Your task to perform on an android device: add a contact in the contacts app Image 0: 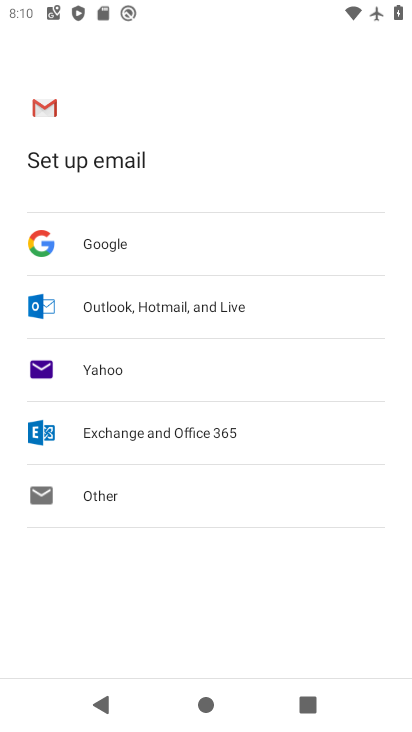
Step 0: press home button
Your task to perform on an android device: add a contact in the contacts app Image 1: 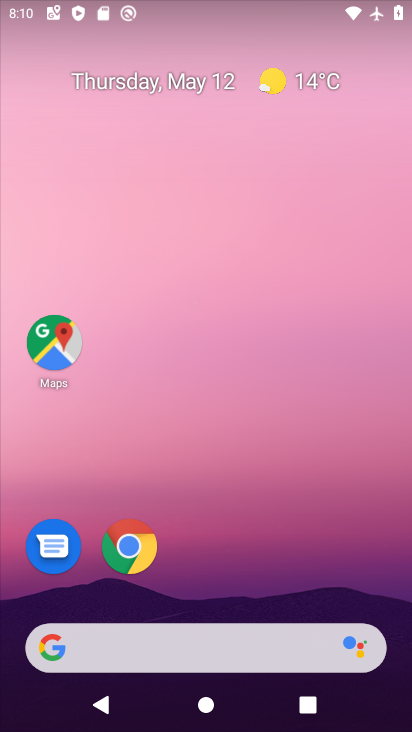
Step 1: drag from (196, 653) to (398, 240)
Your task to perform on an android device: add a contact in the contacts app Image 2: 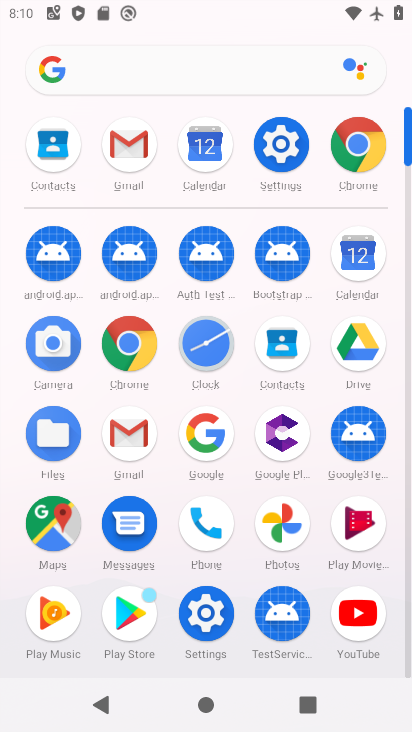
Step 2: click (302, 354)
Your task to perform on an android device: add a contact in the contacts app Image 3: 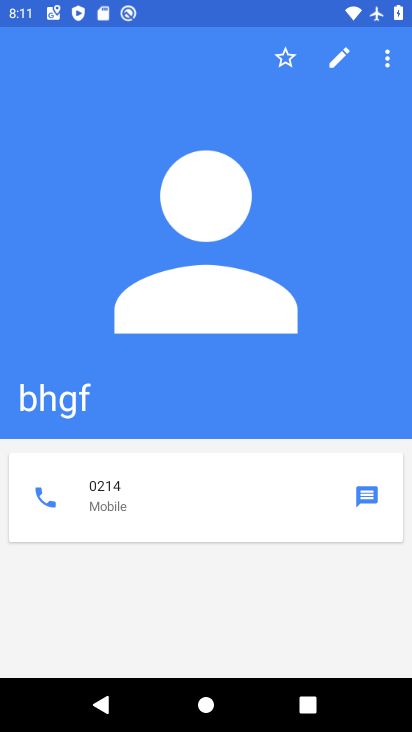
Step 3: press back button
Your task to perform on an android device: add a contact in the contacts app Image 4: 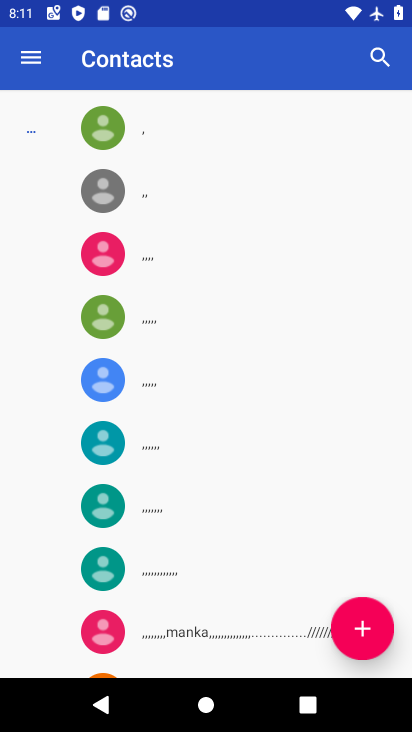
Step 4: click (365, 632)
Your task to perform on an android device: add a contact in the contacts app Image 5: 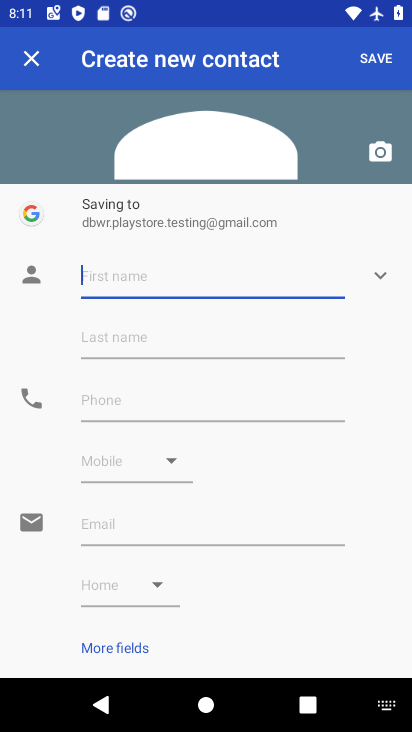
Step 5: type "nuyt"
Your task to perform on an android device: add a contact in the contacts app Image 6: 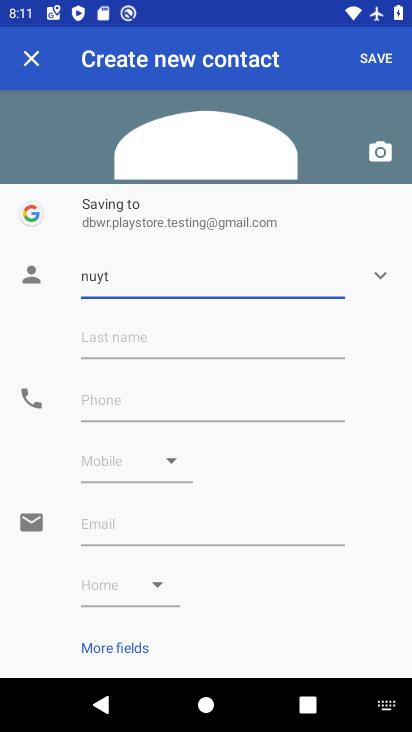
Step 6: click (126, 398)
Your task to perform on an android device: add a contact in the contacts app Image 7: 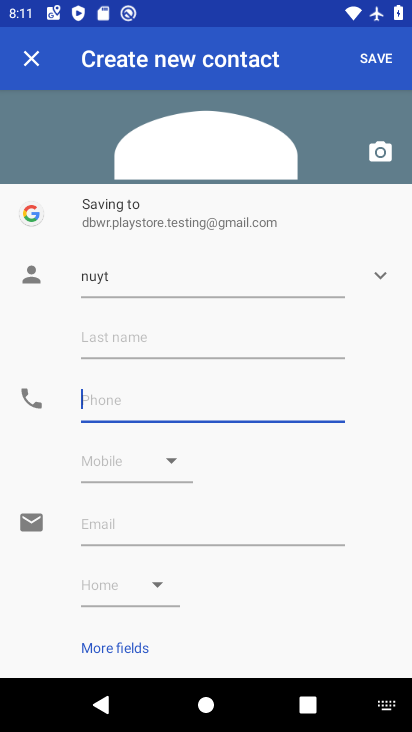
Step 7: type "8597"
Your task to perform on an android device: add a contact in the contacts app Image 8: 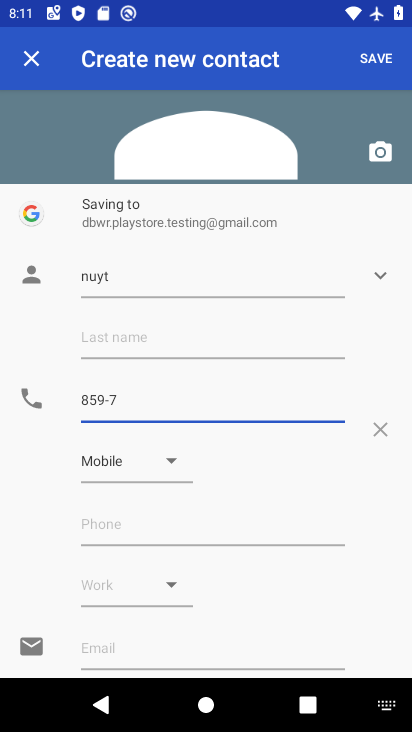
Step 8: click (371, 57)
Your task to perform on an android device: add a contact in the contacts app Image 9: 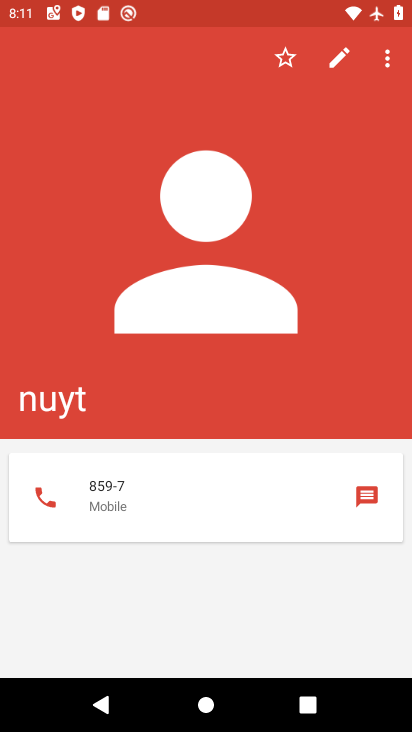
Step 9: task complete